Your task to perform on an android device: turn off notifications in google photos Image 0: 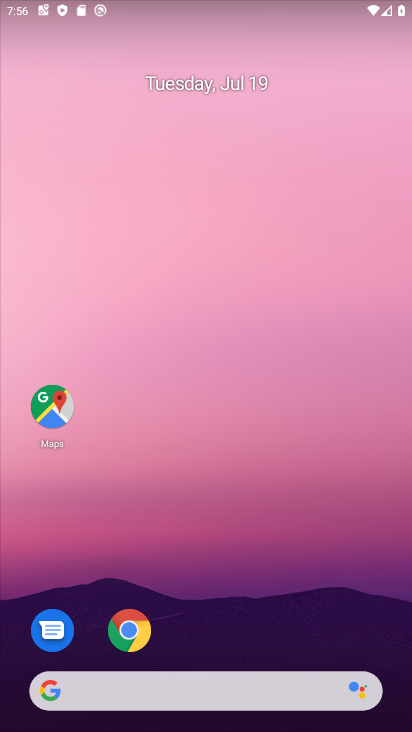
Step 0: drag from (267, 605) to (300, 122)
Your task to perform on an android device: turn off notifications in google photos Image 1: 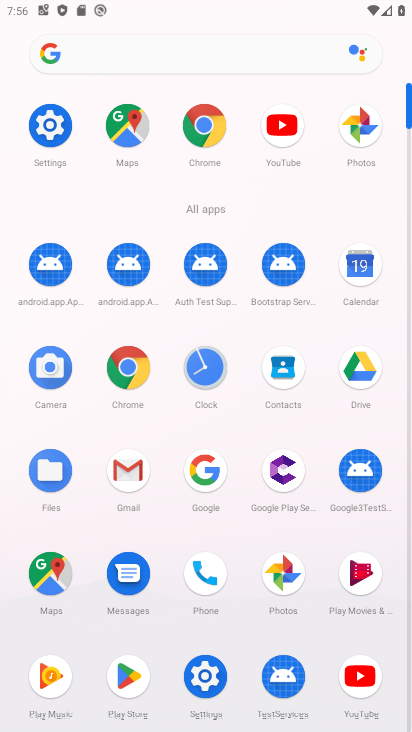
Step 1: click (282, 577)
Your task to perform on an android device: turn off notifications in google photos Image 2: 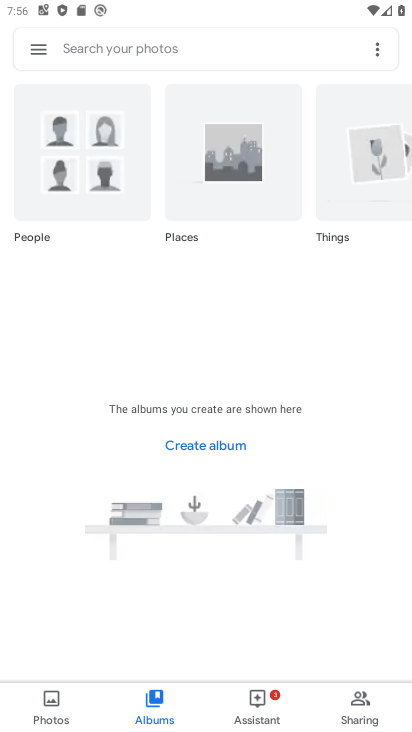
Step 2: click (30, 44)
Your task to perform on an android device: turn off notifications in google photos Image 3: 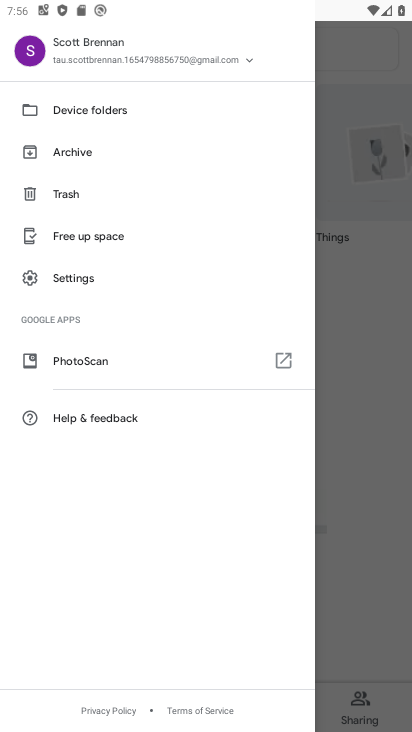
Step 3: click (88, 276)
Your task to perform on an android device: turn off notifications in google photos Image 4: 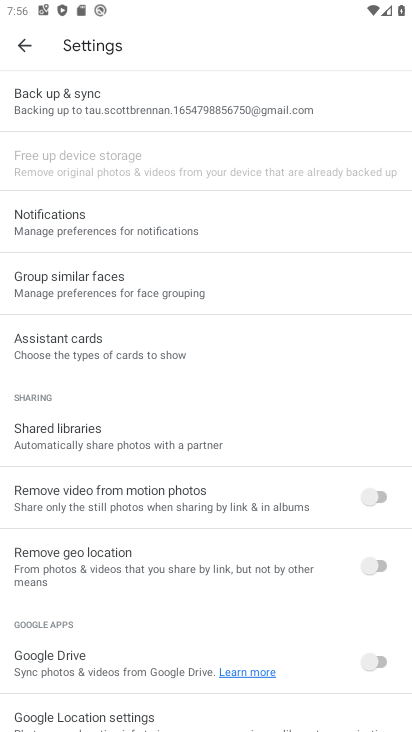
Step 4: click (89, 221)
Your task to perform on an android device: turn off notifications in google photos Image 5: 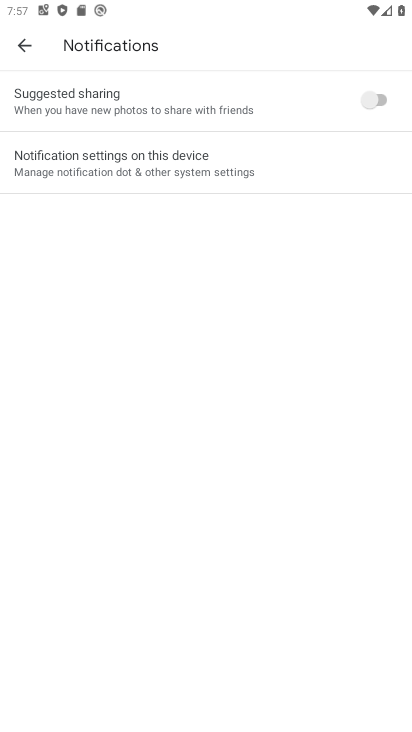
Step 5: click (129, 171)
Your task to perform on an android device: turn off notifications in google photos Image 6: 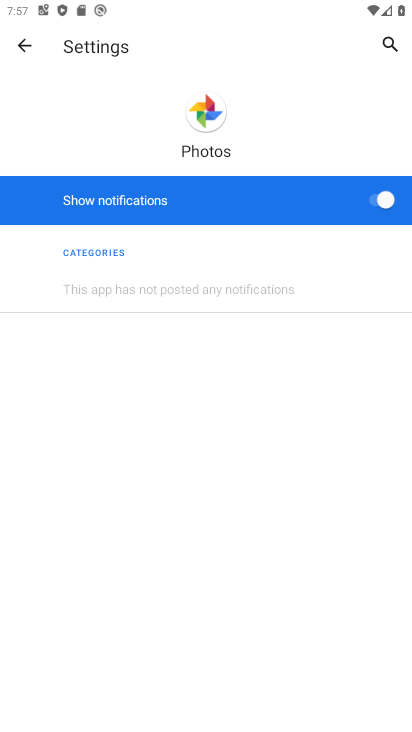
Step 6: click (385, 202)
Your task to perform on an android device: turn off notifications in google photos Image 7: 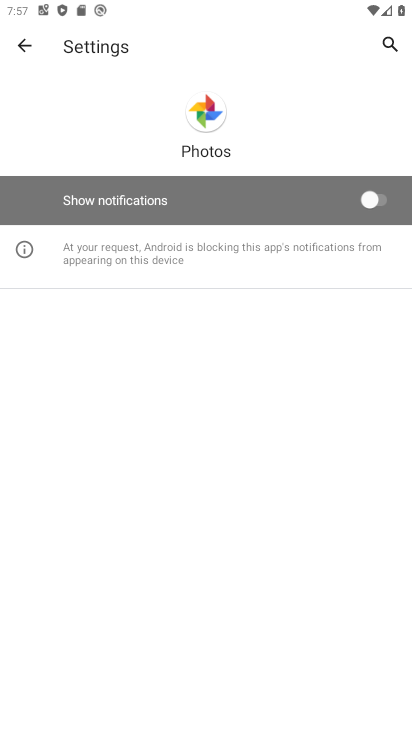
Step 7: task complete